Your task to perform on an android device: Open sound settings Image 0: 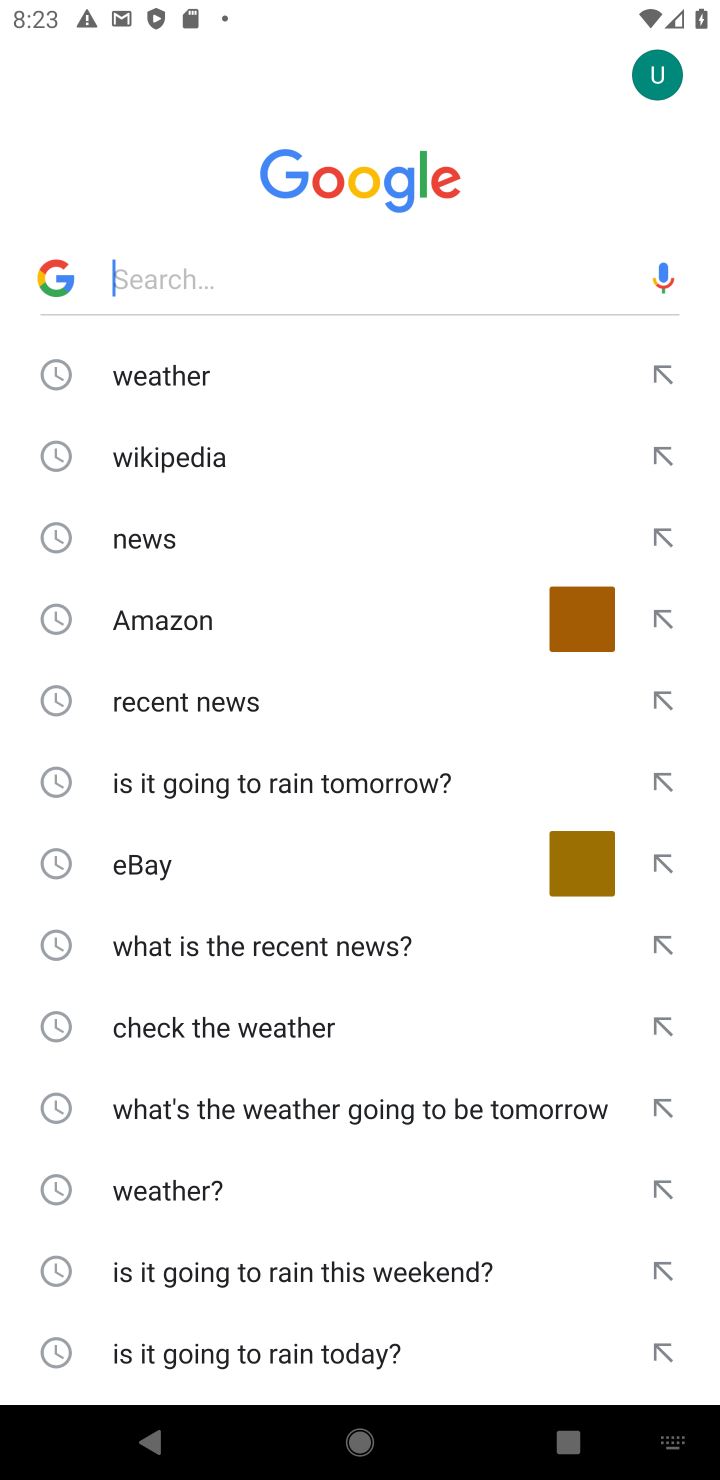
Step 0: press home button
Your task to perform on an android device: Open sound settings Image 1: 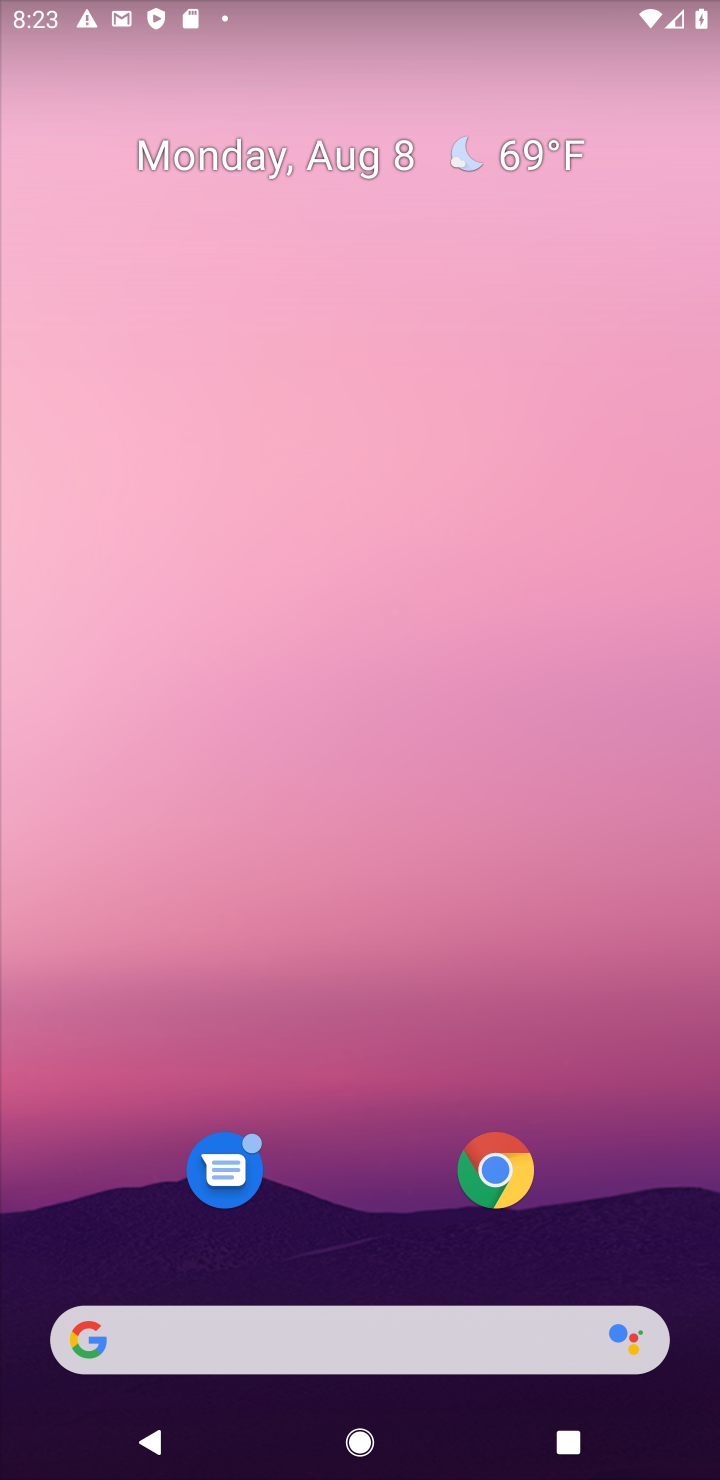
Step 1: drag from (653, 1177) to (549, 464)
Your task to perform on an android device: Open sound settings Image 2: 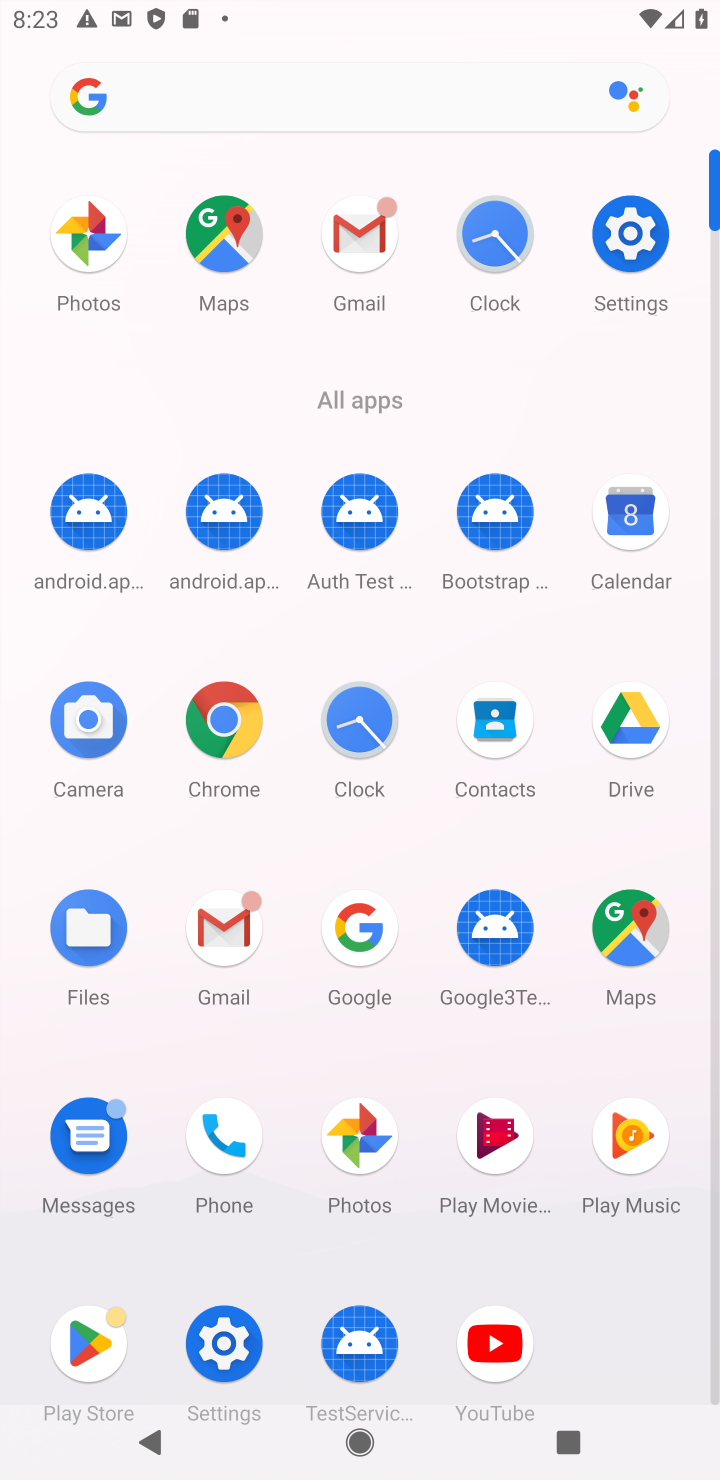
Step 2: click (224, 1335)
Your task to perform on an android device: Open sound settings Image 3: 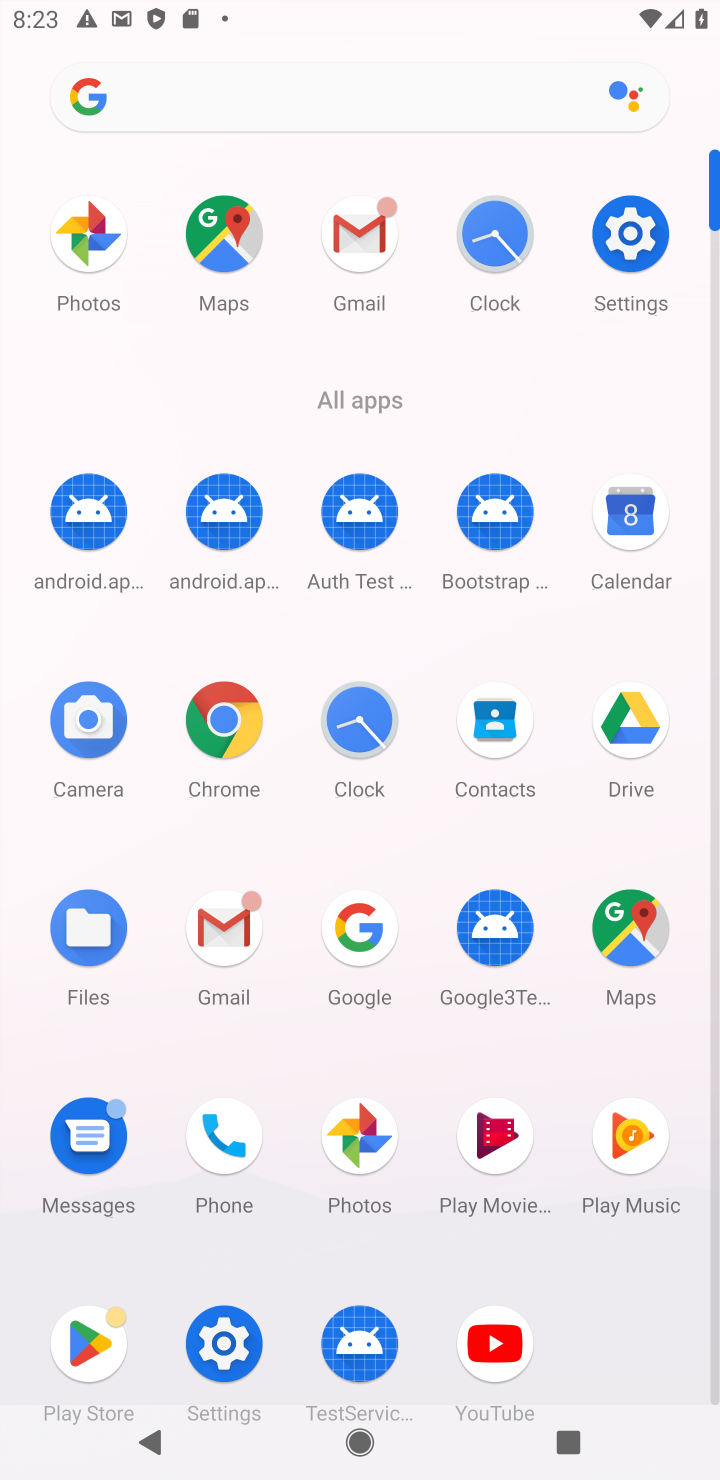
Step 3: click (224, 1335)
Your task to perform on an android device: Open sound settings Image 4: 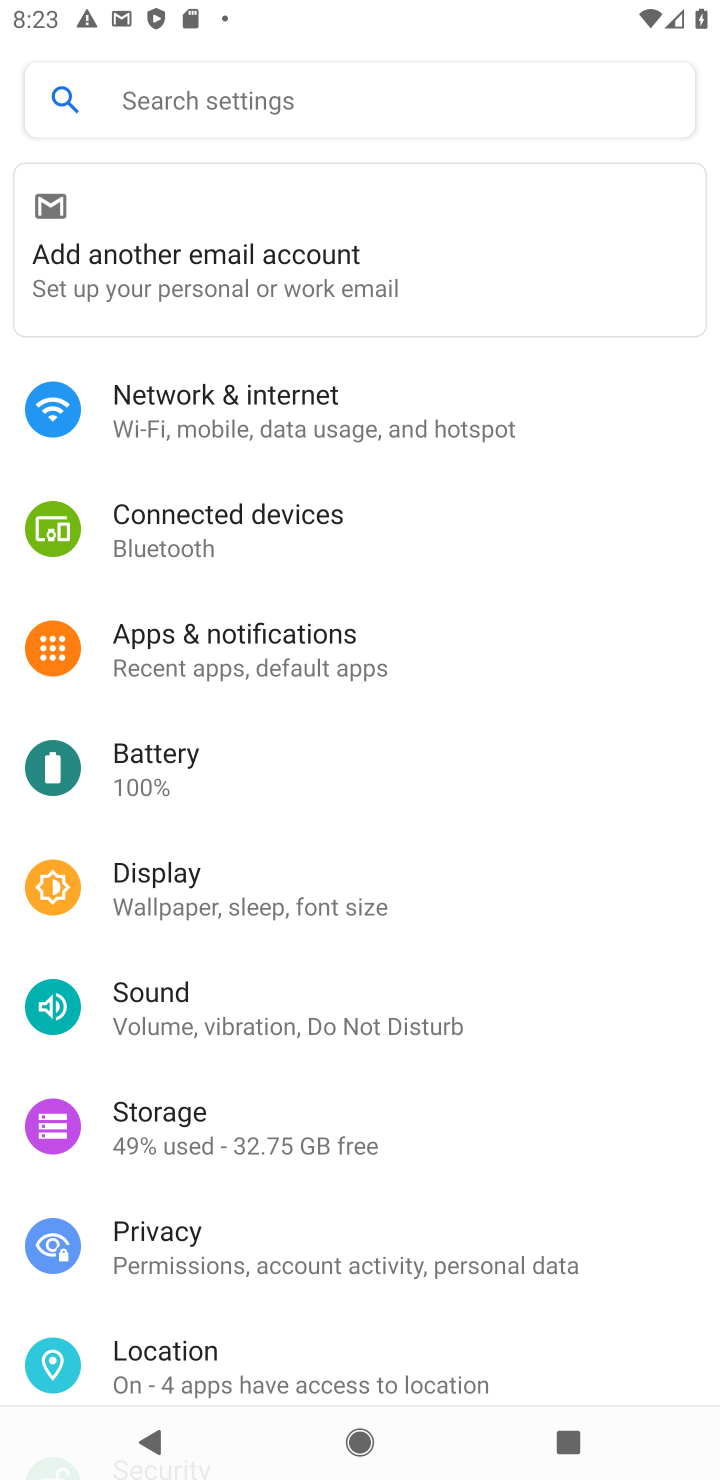
Step 4: click (300, 1022)
Your task to perform on an android device: Open sound settings Image 5: 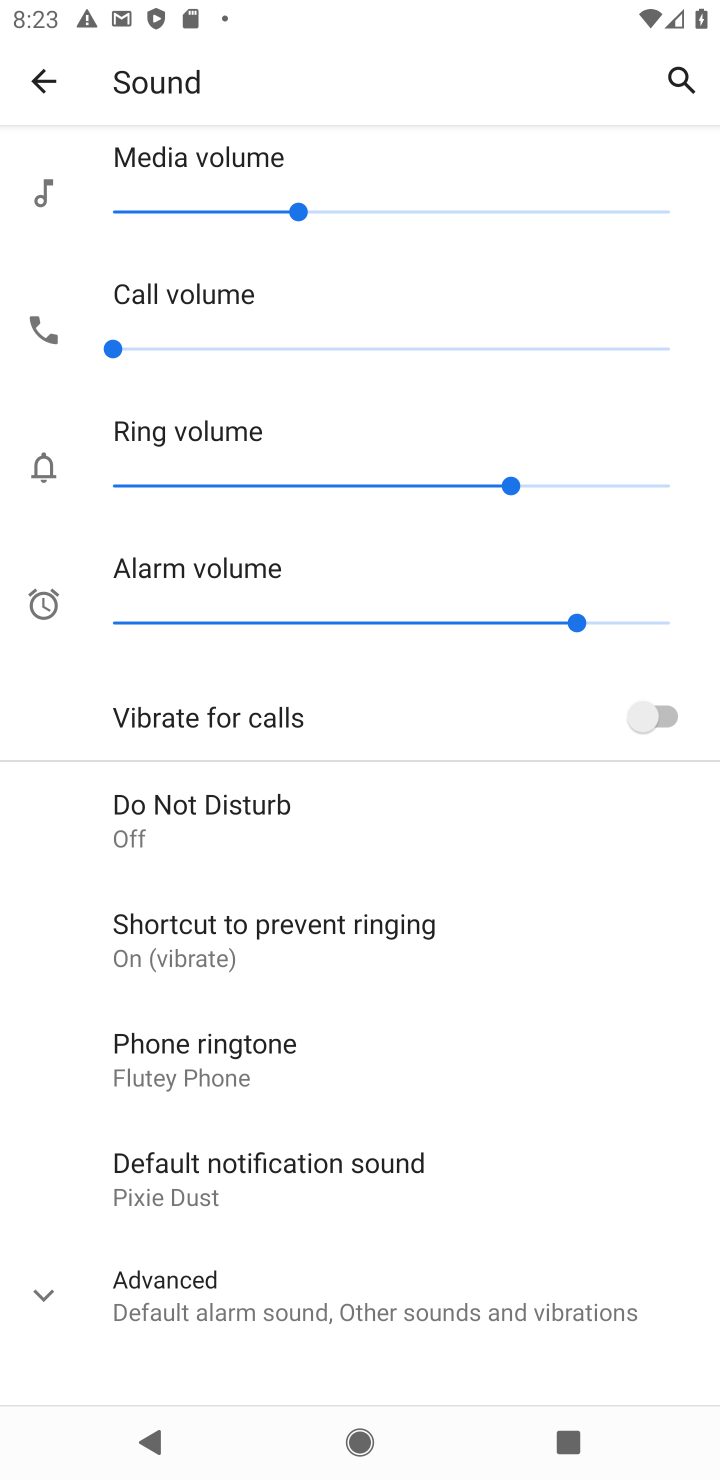
Step 5: task complete